Your task to perform on an android device: install app "Clock" Image 0: 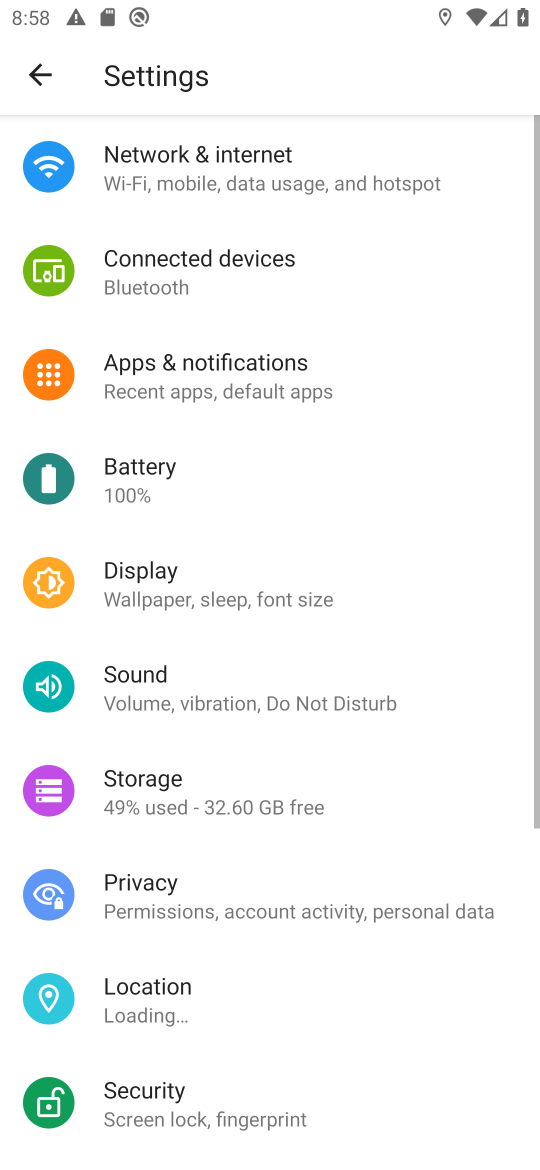
Step 0: press home button
Your task to perform on an android device: install app "Clock" Image 1: 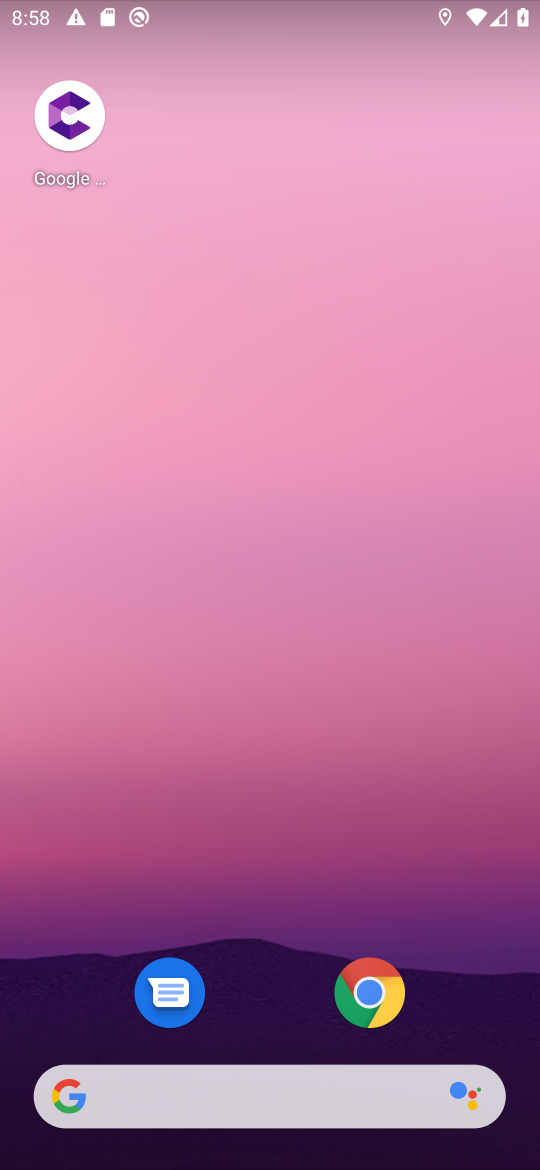
Step 1: drag from (233, 1114) to (286, 115)
Your task to perform on an android device: install app "Clock" Image 2: 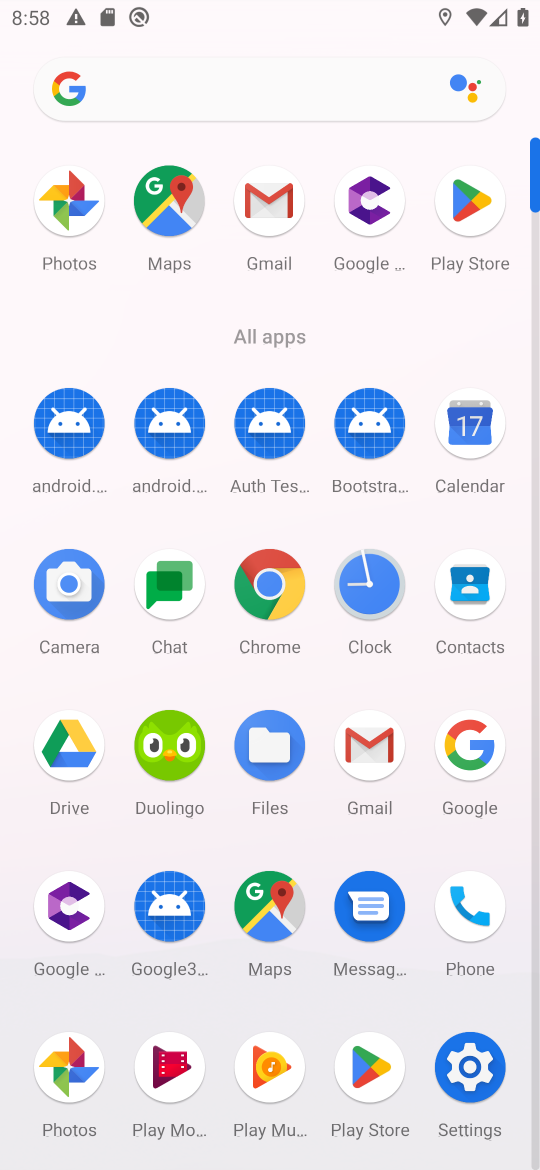
Step 2: click (479, 208)
Your task to perform on an android device: install app "Clock" Image 3: 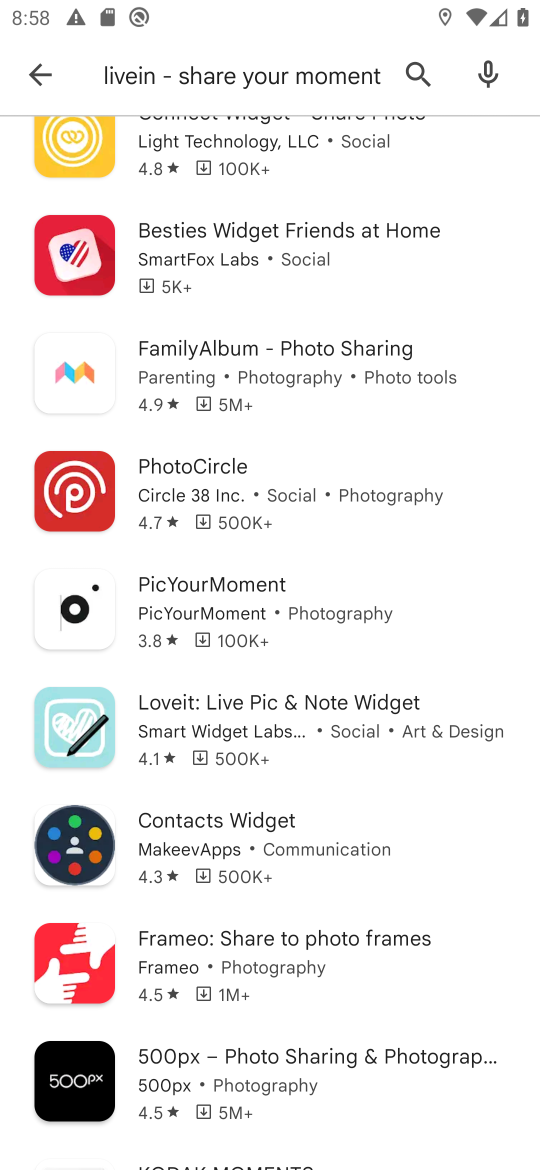
Step 3: press back button
Your task to perform on an android device: install app "Clock" Image 4: 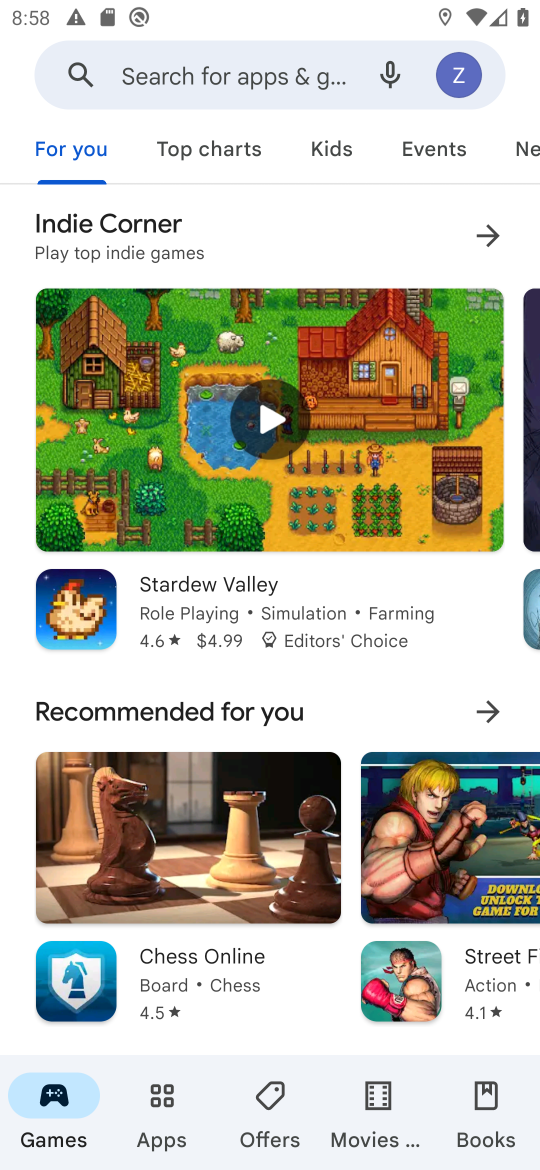
Step 4: click (166, 83)
Your task to perform on an android device: install app "Clock" Image 5: 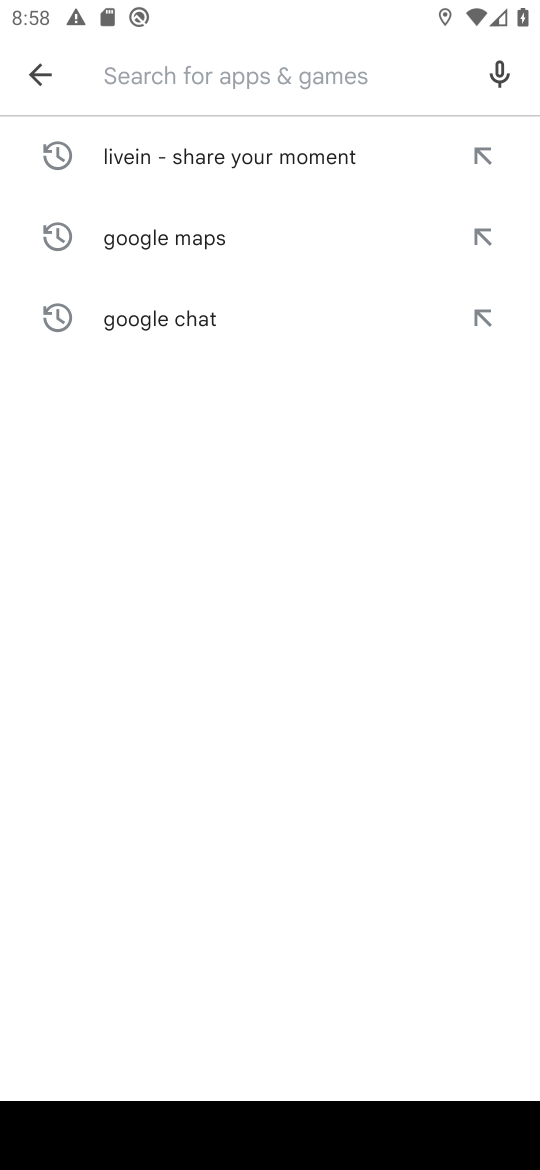
Step 5: type "Clock"
Your task to perform on an android device: install app "Clock" Image 6: 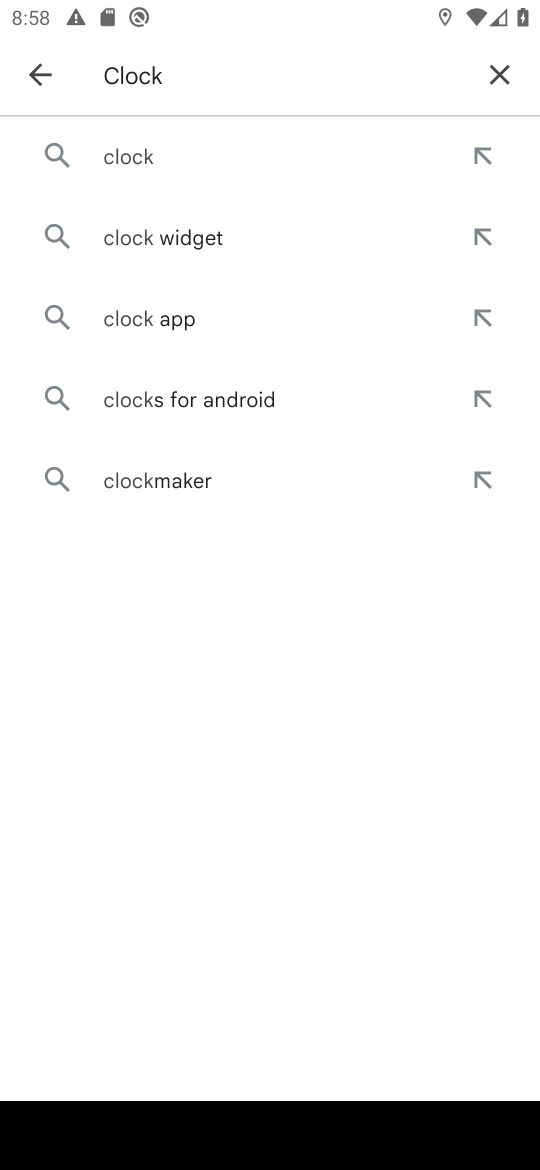
Step 6: click (142, 159)
Your task to perform on an android device: install app "Clock" Image 7: 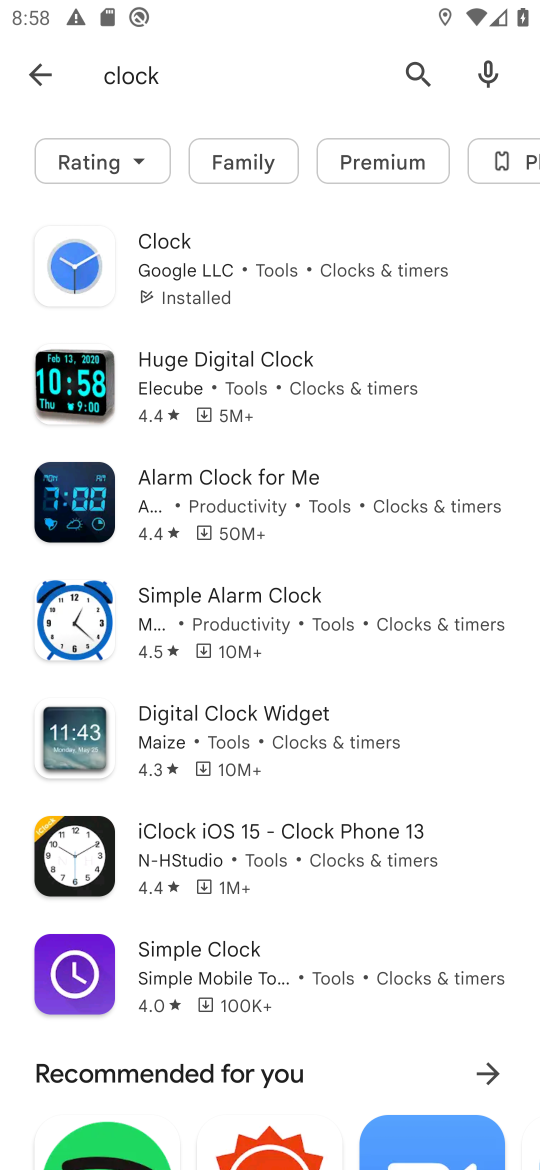
Step 7: click (152, 234)
Your task to perform on an android device: install app "Clock" Image 8: 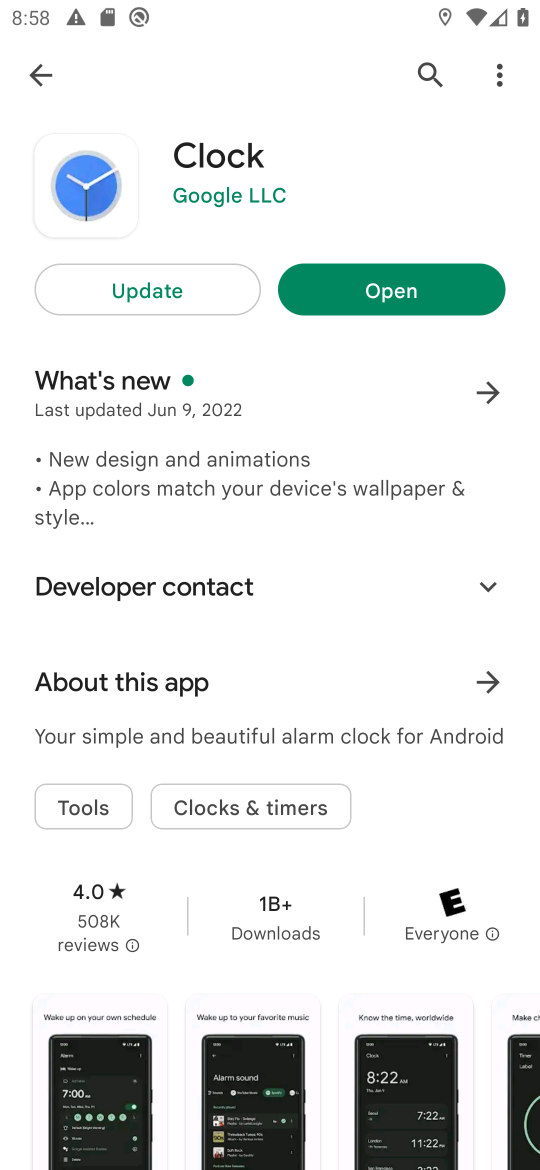
Step 8: click (154, 300)
Your task to perform on an android device: install app "Clock" Image 9: 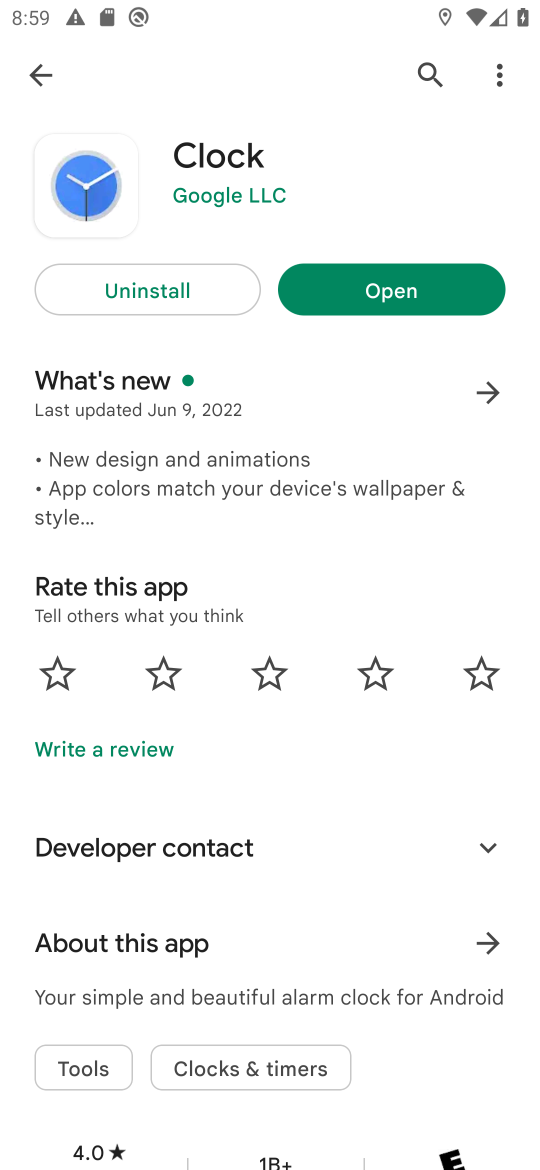
Step 9: task complete